Your task to perform on an android device: Open the Play Movies app and select the watchlist tab. Image 0: 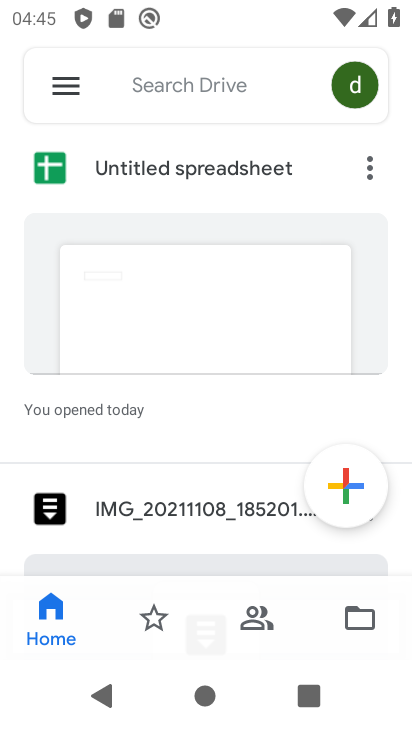
Step 0: press home button
Your task to perform on an android device: Open the Play Movies app and select the watchlist tab. Image 1: 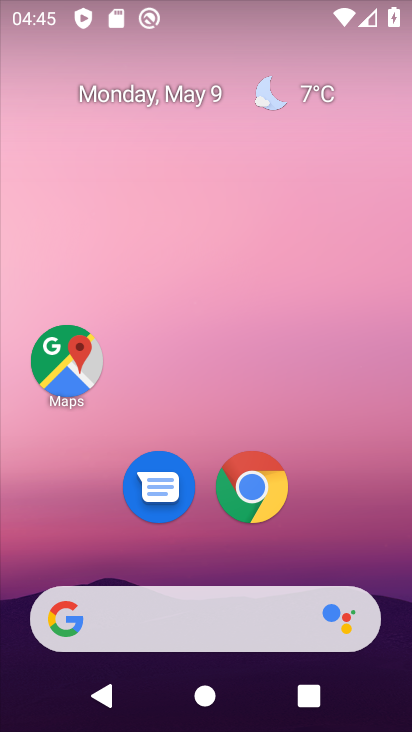
Step 1: drag from (213, 557) to (244, 40)
Your task to perform on an android device: Open the Play Movies app and select the watchlist tab. Image 2: 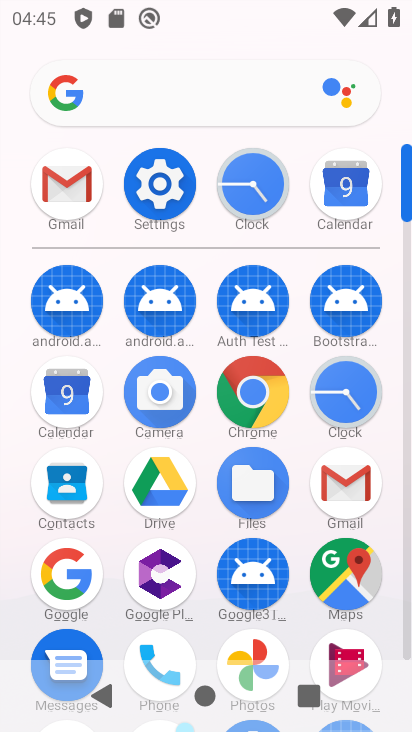
Step 2: drag from (216, 524) to (217, 175)
Your task to perform on an android device: Open the Play Movies app and select the watchlist tab. Image 3: 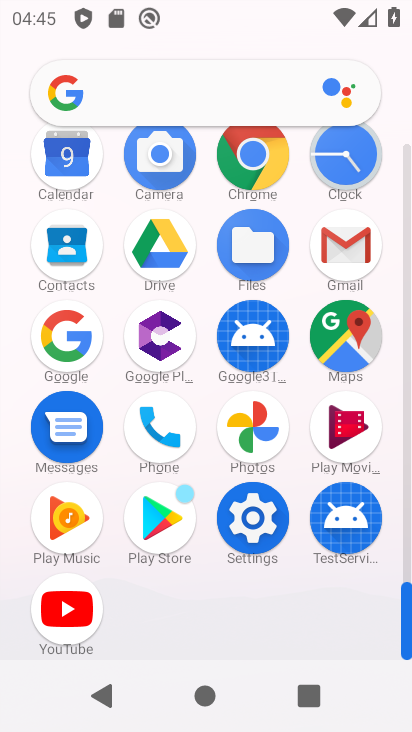
Step 3: click (345, 436)
Your task to perform on an android device: Open the Play Movies app and select the watchlist tab. Image 4: 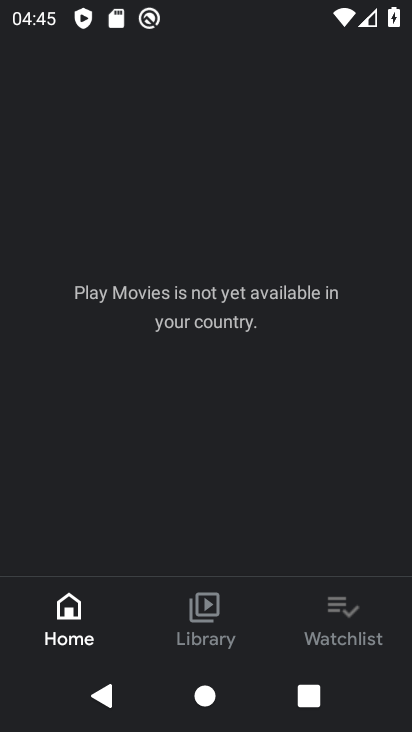
Step 4: click (341, 600)
Your task to perform on an android device: Open the Play Movies app and select the watchlist tab. Image 5: 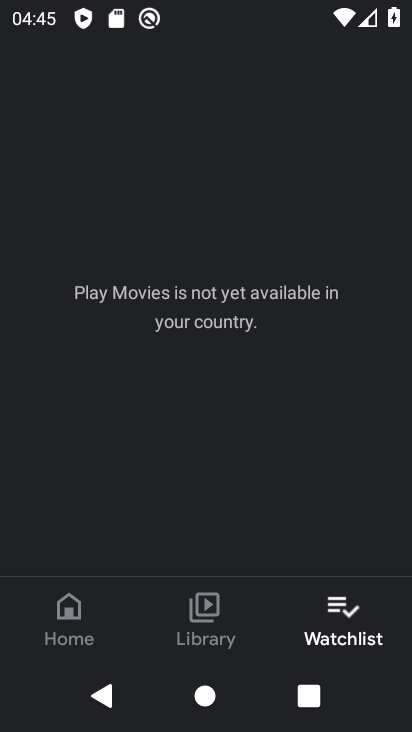
Step 5: task complete